Your task to perform on an android device: Is it going to rain this weekend? Image 0: 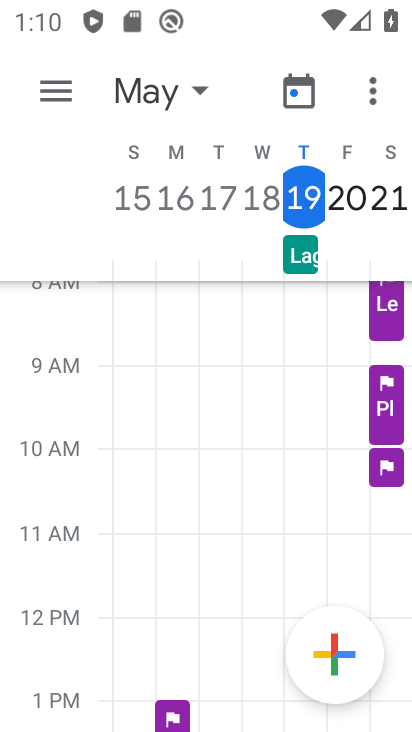
Step 0: press back button
Your task to perform on an android device: Is it going to rain this weekend? Image 1: 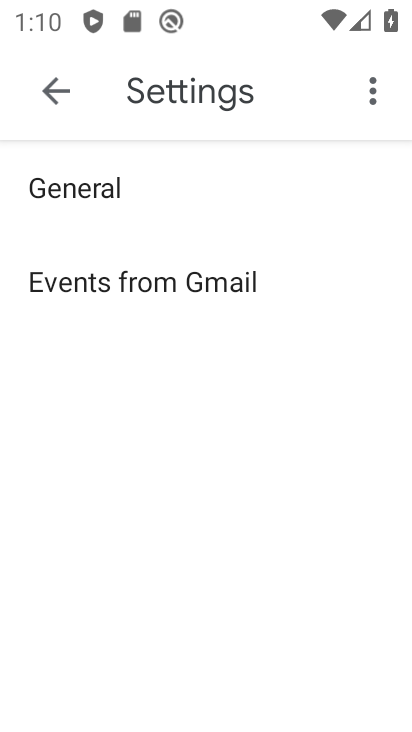
Step 1: press back button
Your task to perform on an android device: Is it going to rain this weekend? Image 2: 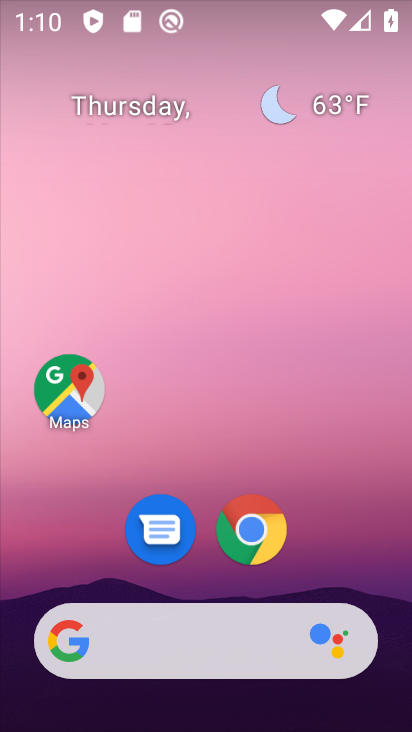
Step 2: drag from (325, 537) to (238, 7)
Your task to perform on an android device: Is it going to rain this weekend? Image 3: 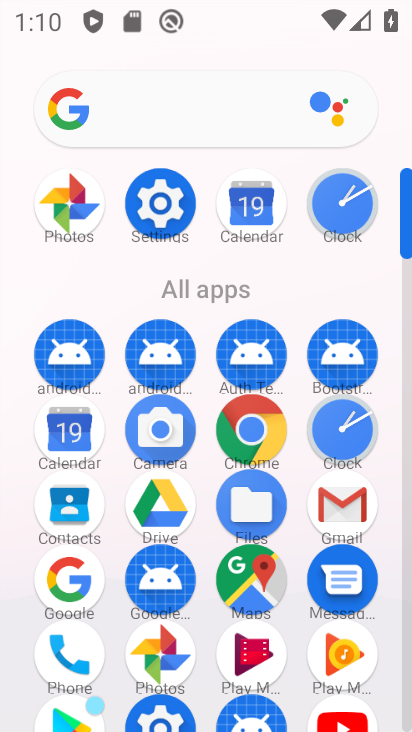
Step 3: click (64, 578)
Your task to perform on an android device: Is it going to rain this weekend? Image 4: 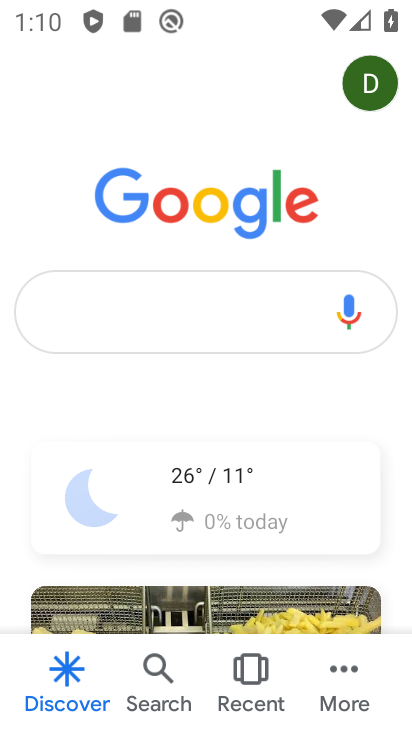
Step 4: click (171, 280)
Your task to perform on an android device: Is it going to rain this weekend? Image 5: 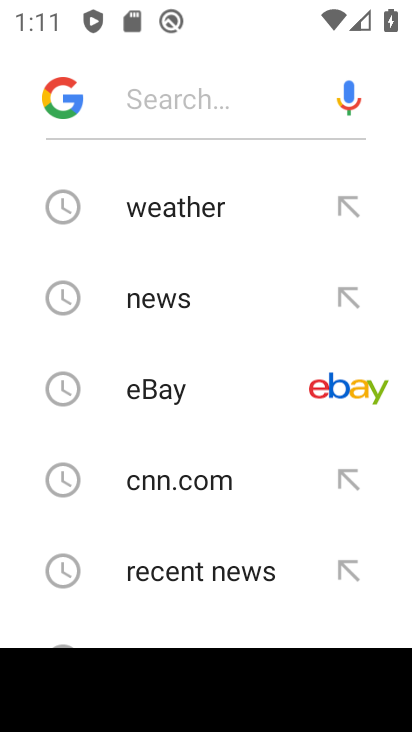
Step 5: type "Is it going to rain this weekend"
Your task to perform on an android device: Is it going to rain this weekend? Image 6: 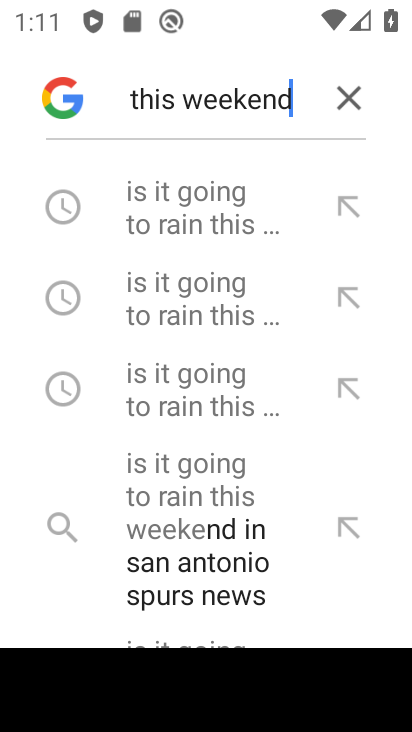
Step 6: type ""
Your task to perform on an android device: Is it going to rain this weekend? Image 7: 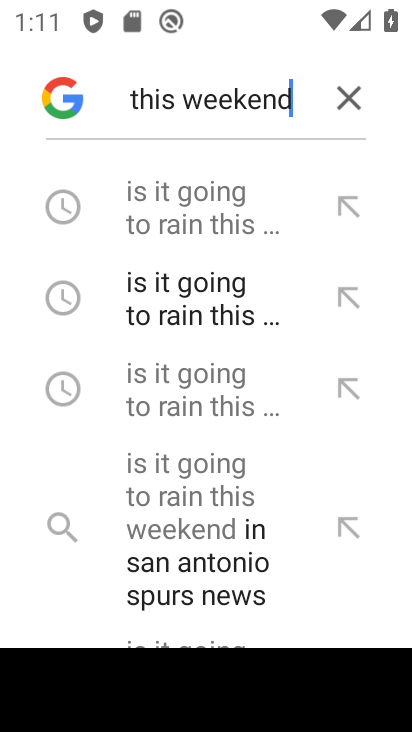
Step 7: click (225, 222)
Your task to perform on an android device: Is it going to rain this weekend? Image 8: 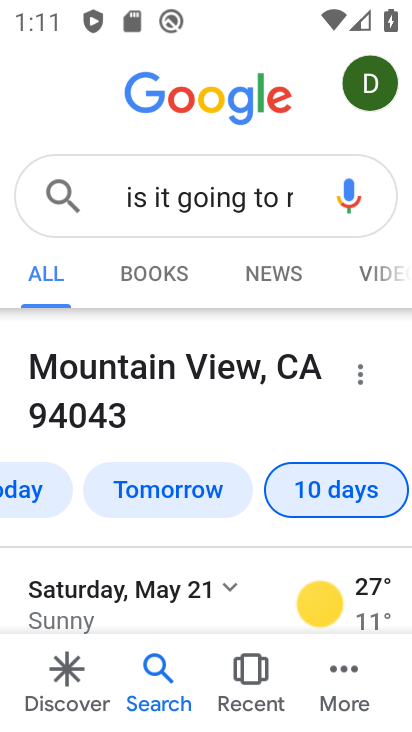
Step 8: task complete